Your task to perform on an android device: toggle notification dots Image 0: 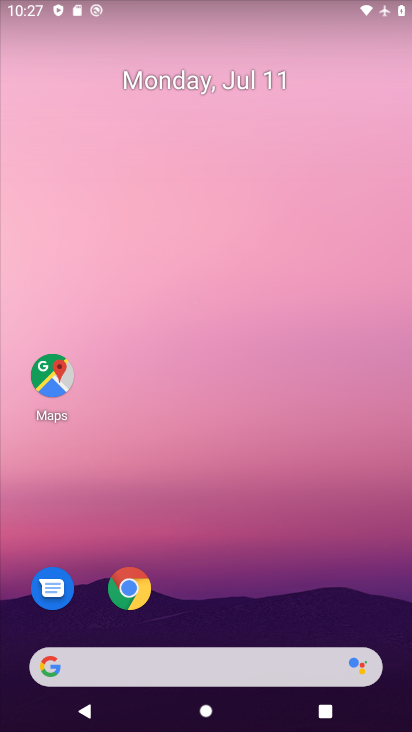
Step 0: press home button
Your task to perform on an android device: toggle notification dots Image 1: 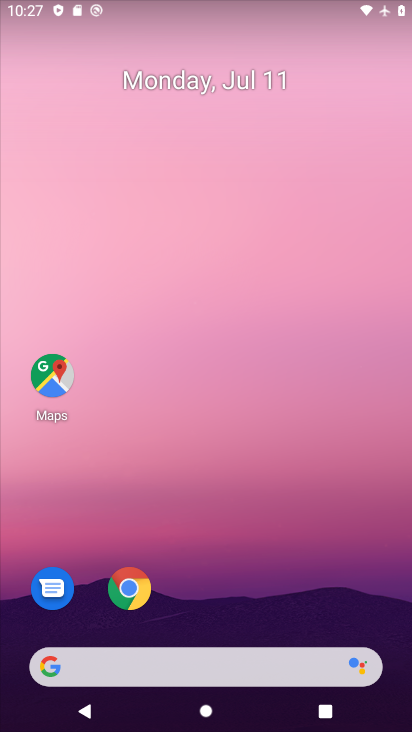
Step 1: drag from (139, 671) to (299, 140)
Your task to perform on an android device: toggle notification dots Image 2: 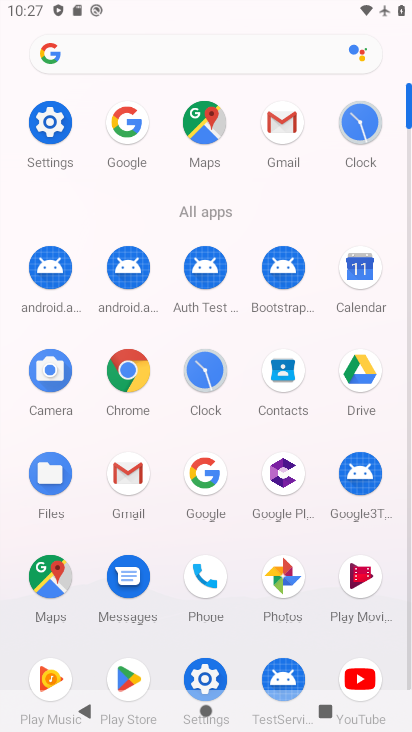
Step 2: click (61, 125)
Your task to perform on an android device: toggle notification dots Image 3: 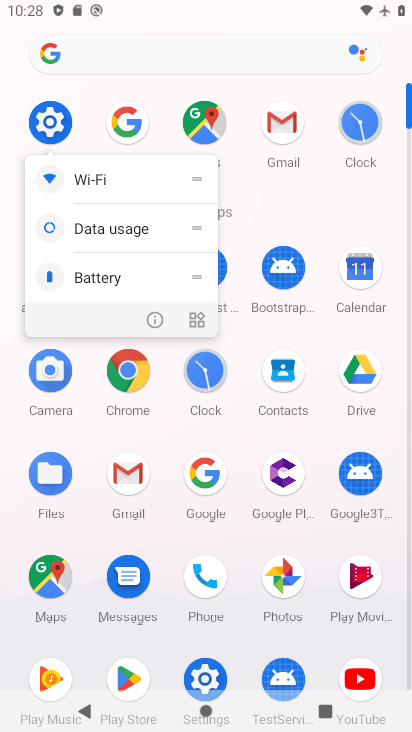
Step 3: click (45, 122)
Your task to perform on an android device: toggle notification dots Image 4: 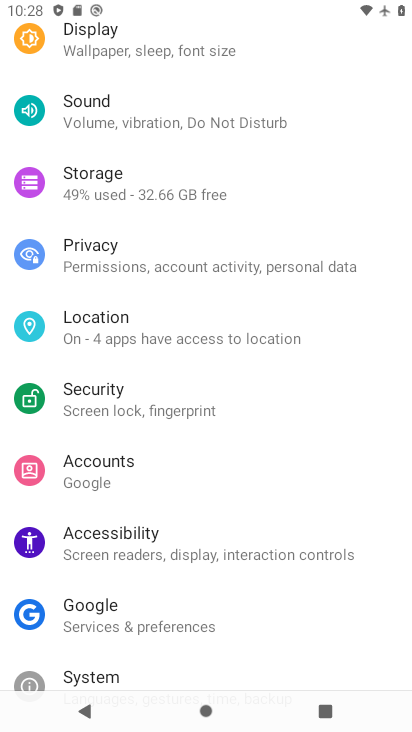
Step 4: drag from (296, 72) to (220, 591)
Your task to perform on an android device: toggle notification dots Image 5: 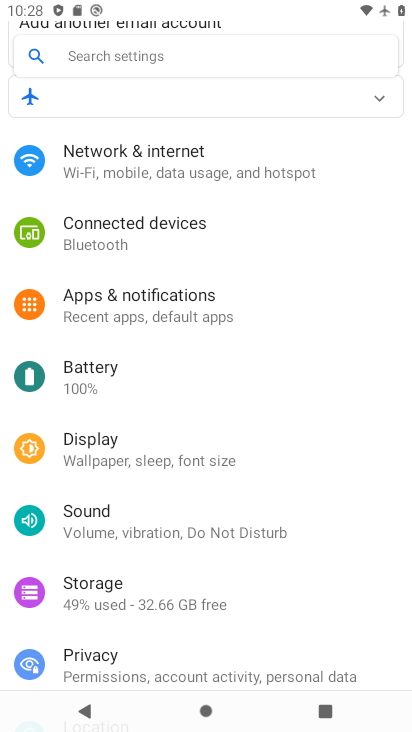
Step 5: click (212, 297)
Your task to perform on an android device: toggle notification dots Image 6: 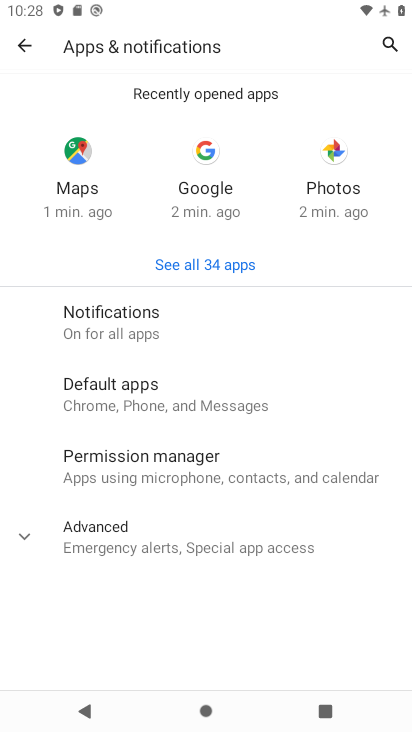
Step 6: click (134, 321)
Your task to perform on an android device: toggle notification dots Image 7: 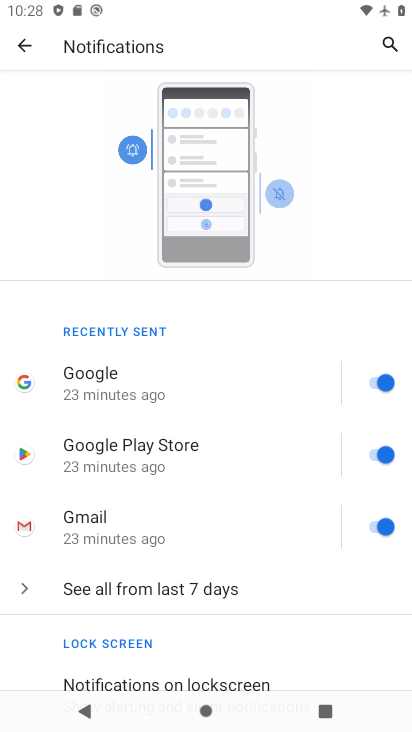
Step 7: drag from (238, 588) to (307, 341)
Your task to perform on an android device: toggle notification dots Image 8: 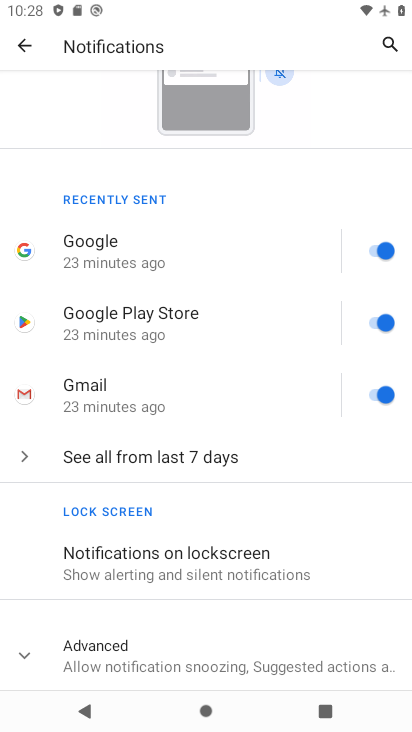
Step 8: click (94, 659)
Your task to perform on an android device: toggle notification dots Image 9: 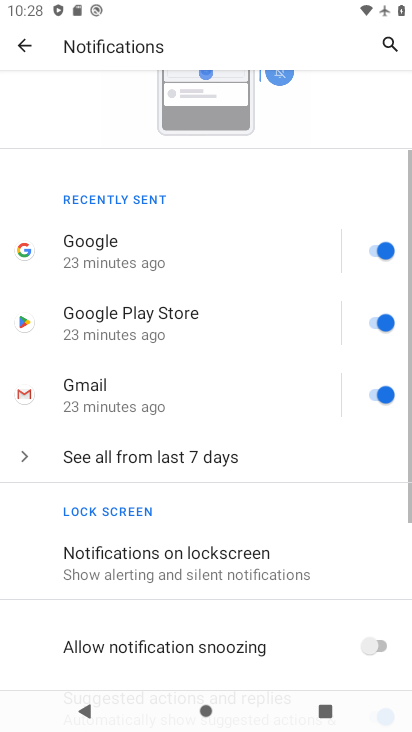
Step 9: drag from (185, 606) to (388, 116)
Your task to perform on an android device: toggle notification dots Image 10: 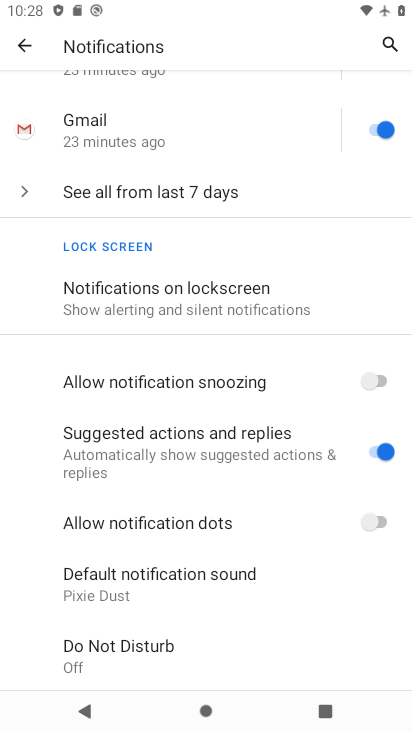
Step 10: click (392, 524)
Your task to perform on an android device: toggle notification dots Image 11: 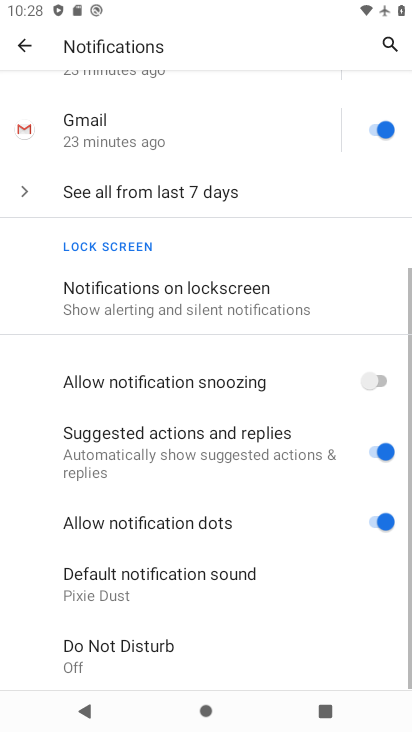
Step 11: click (386, 521)
Your task to perform on an android device: toggle notification dots Image 12: 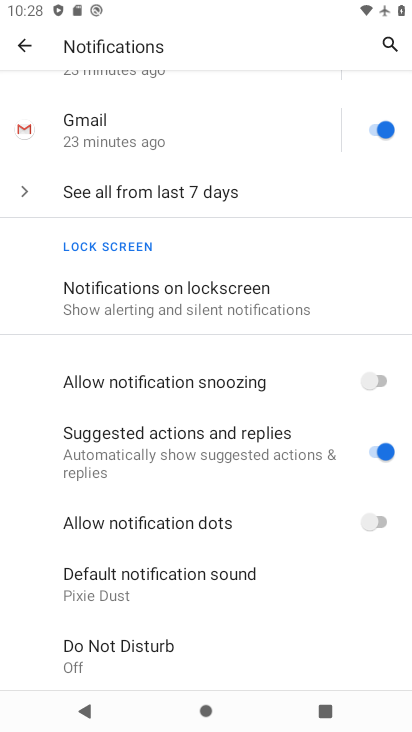
Step 12: click (378, 516)
Your task to perform on an android device: toggle notification dots Image 13: 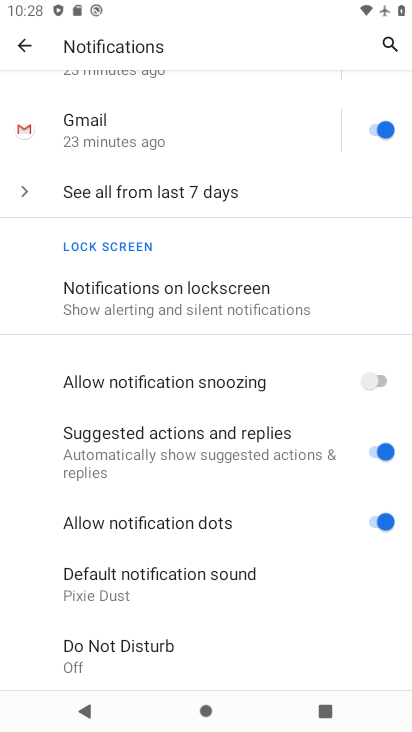
Step 13: task complete